Your task to perform on an android device: Open calendar and show me the fourth week of next month Image 0: 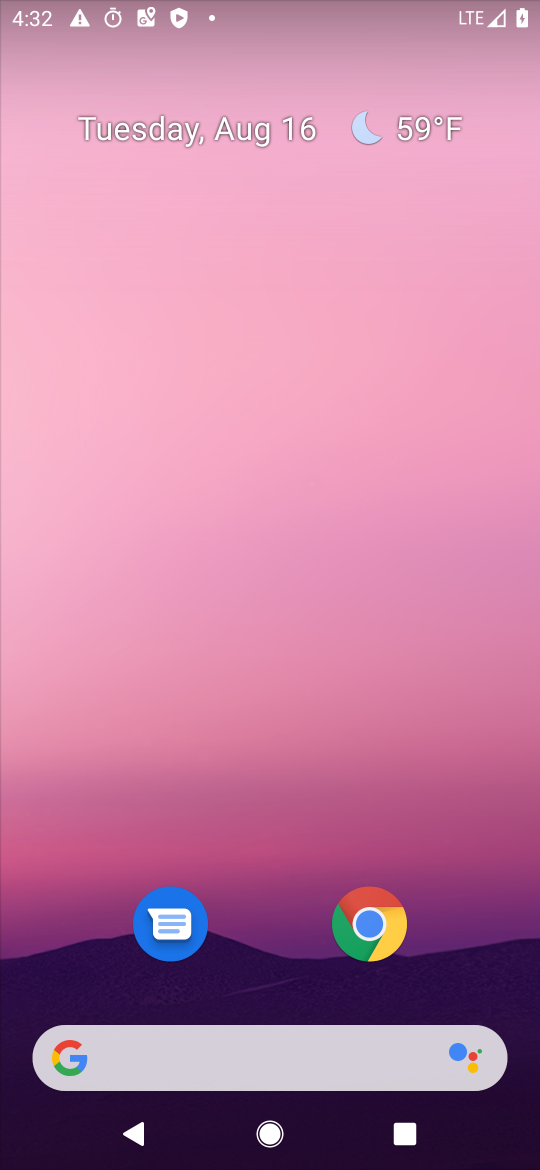
Step 0: click (227, 143)
Your task to perform on an android device: Open calendar and show me the fourth week of next month Image 1: 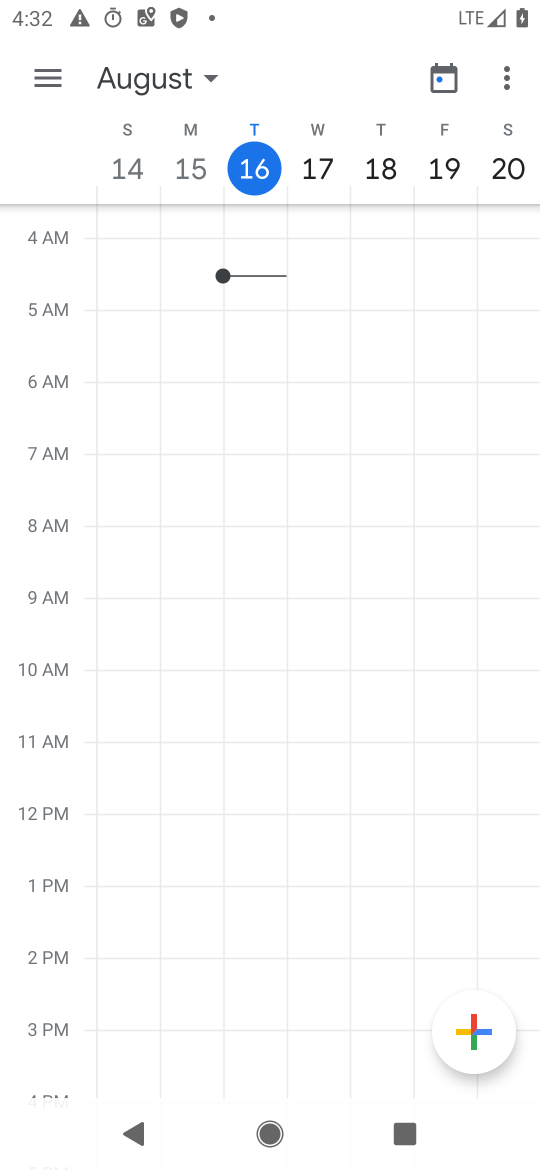
Step 1: click (188, 83)
Your task to perform on an android device: Open calendar and show me the fourth week of next month Image 2: 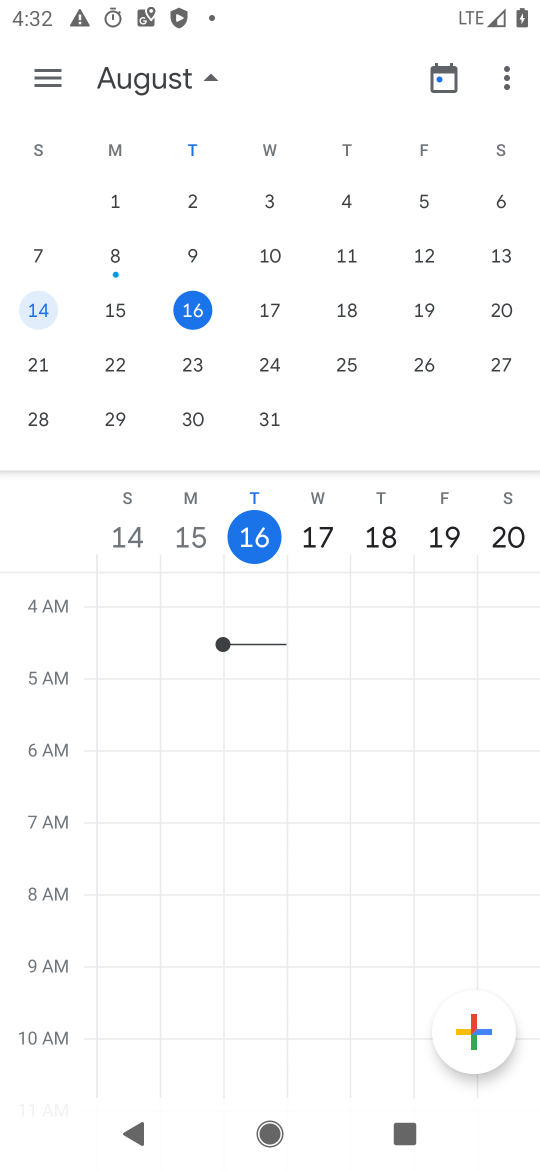
Step 2: drag from (491, 439) to (60, 404)
Your task to perform on an android device: Open calendar and show me the fourth week of next month Image 3: 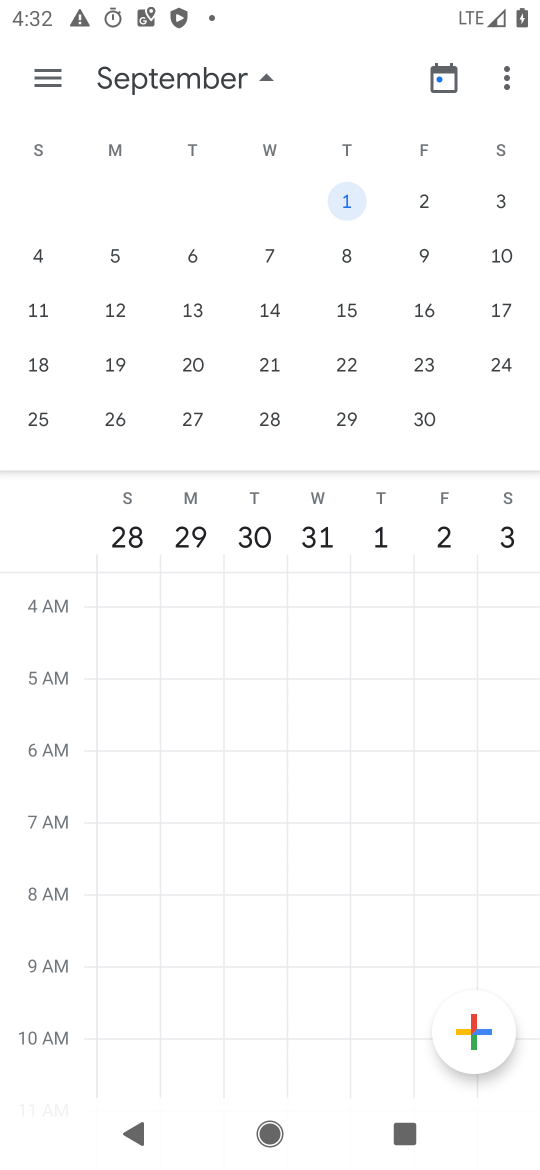
Step 3: click (352, 371)
Your task to perform on an android device: Open calendar and show me the fourth week of next month Image 4: 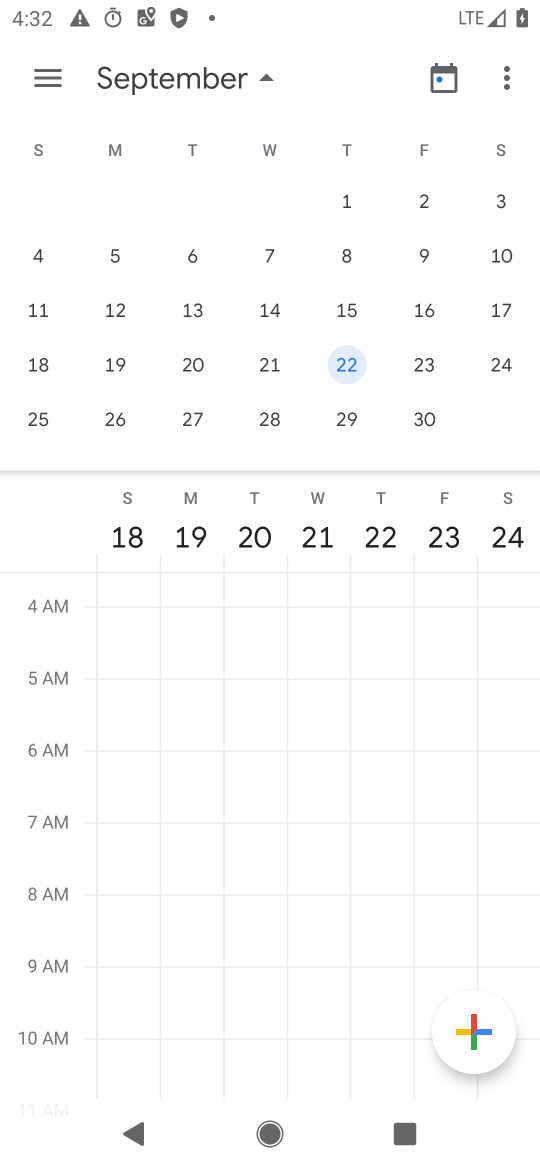
Step 4: task complete